Your task to perform on an android device: check android version Image 0: 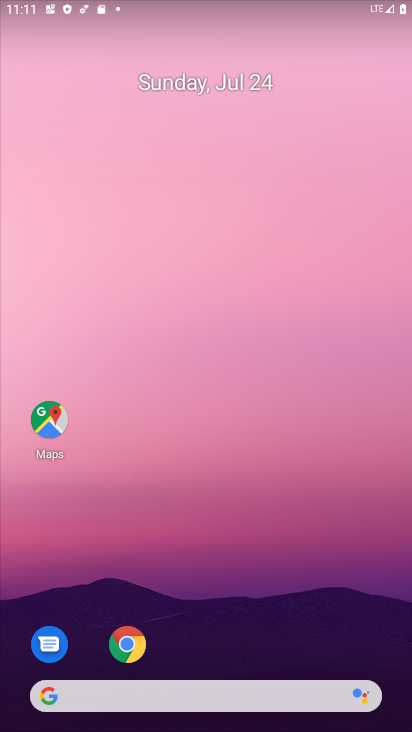
Step 0: drag from (30, 467) to (155, 27)
Your task to perform on an android device: check android version Image 1: 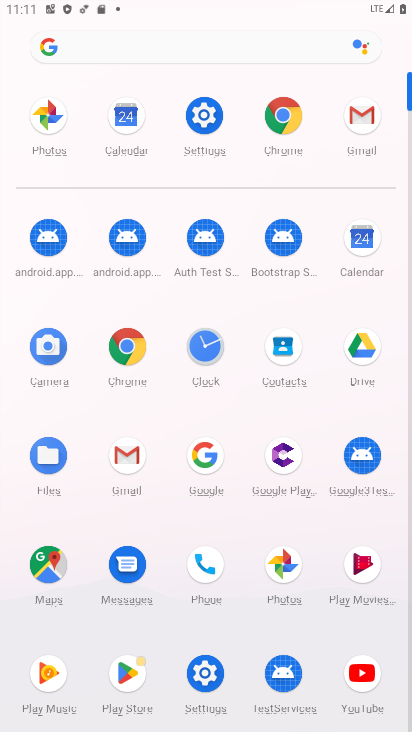
Step 1: click (197, 120)
Your task to perform on an android device: check android version Image 2: 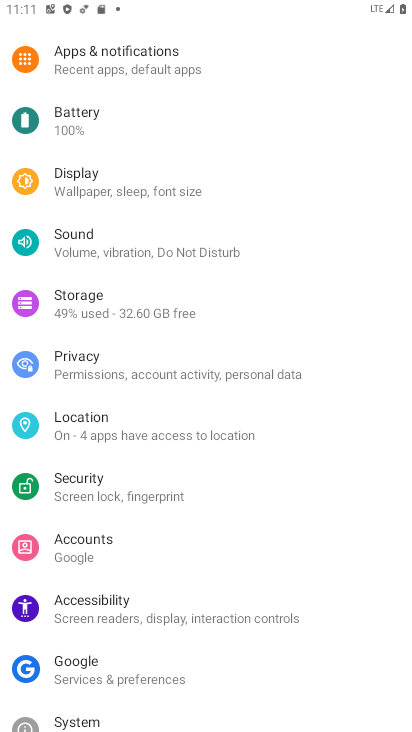
Step 2: drag from (108, 720) to (248, 154)
Your task to perform on an android device: check android version Image 3: 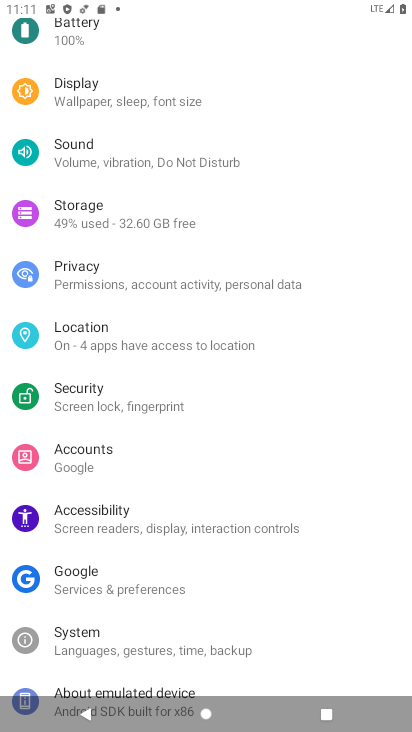
Step 3: click (113, 690)
Your task to perform on an android device: check android version Image 4: 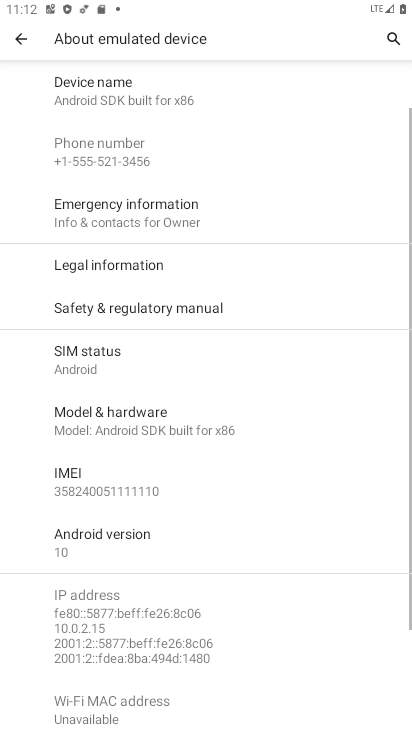
Step 4: click (139, 537)
Your task to perform on an android device: check android version Image 5: 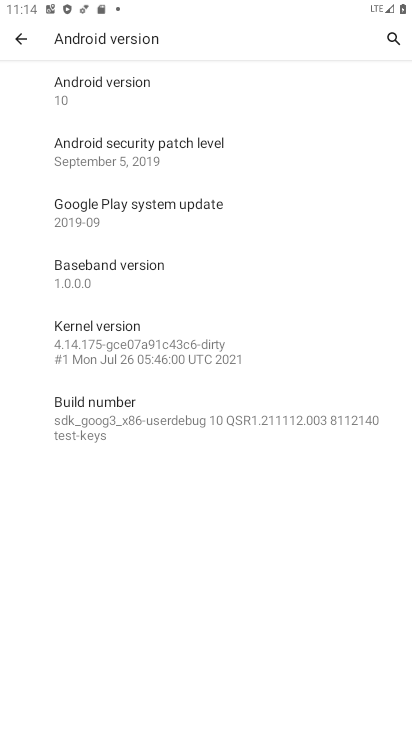
Step 5: task complete